Your task to perform on an android device: install app "Spotify: Music and Podcasts" Image 0: 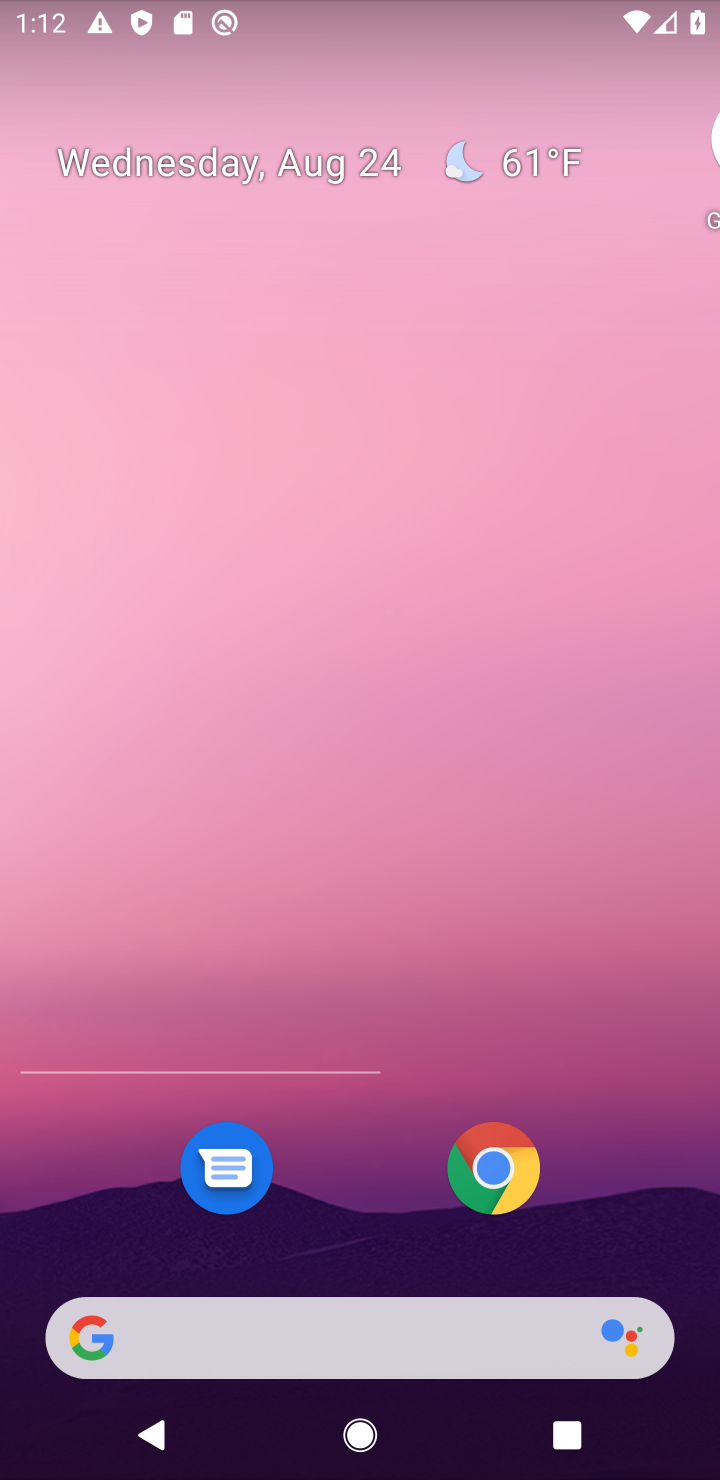
Step 0: press home button
Your task to perform on an android device: install app "Spotify: Music and Podcasts" Image 1: 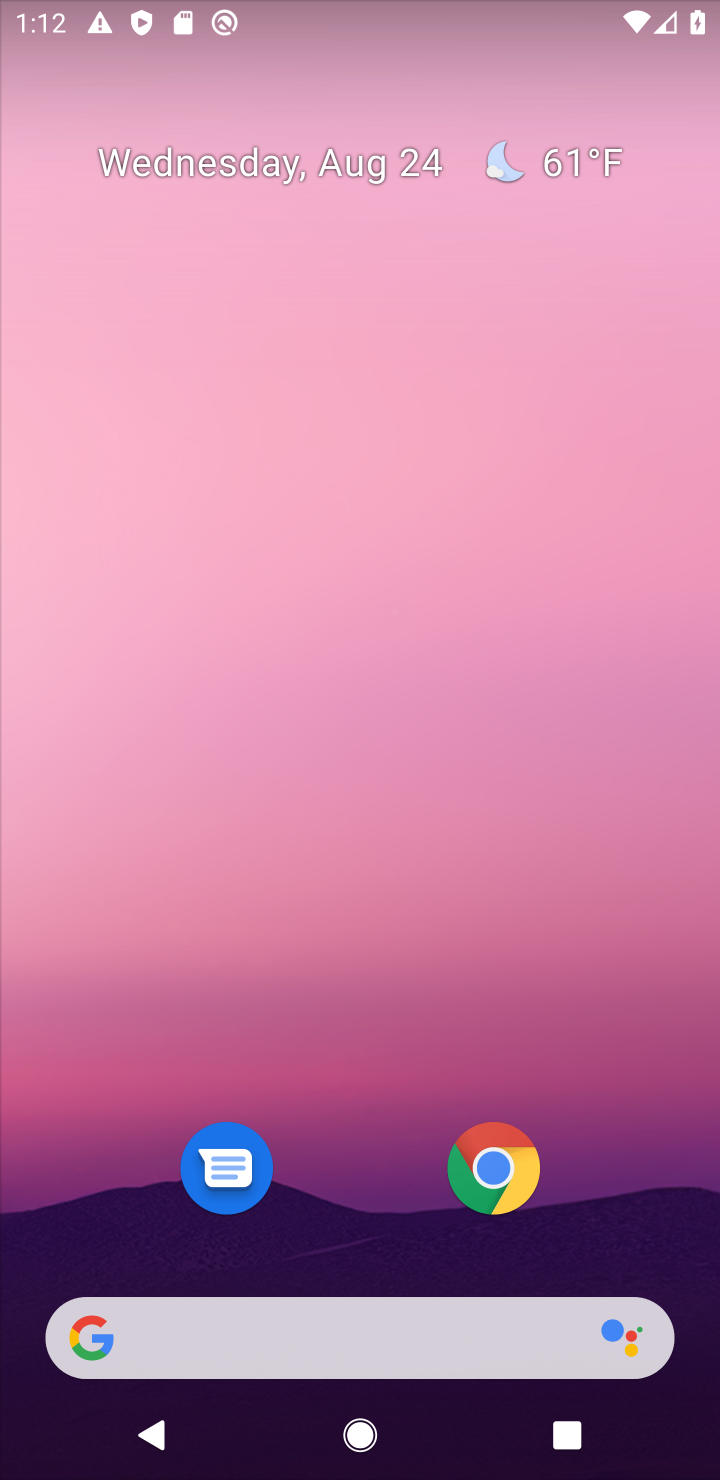
Step 1: drag from (706, 1346) to (623, 240)
Your task to perform on an android device: install app "Spotify: Music and Podcasts" Image 2: 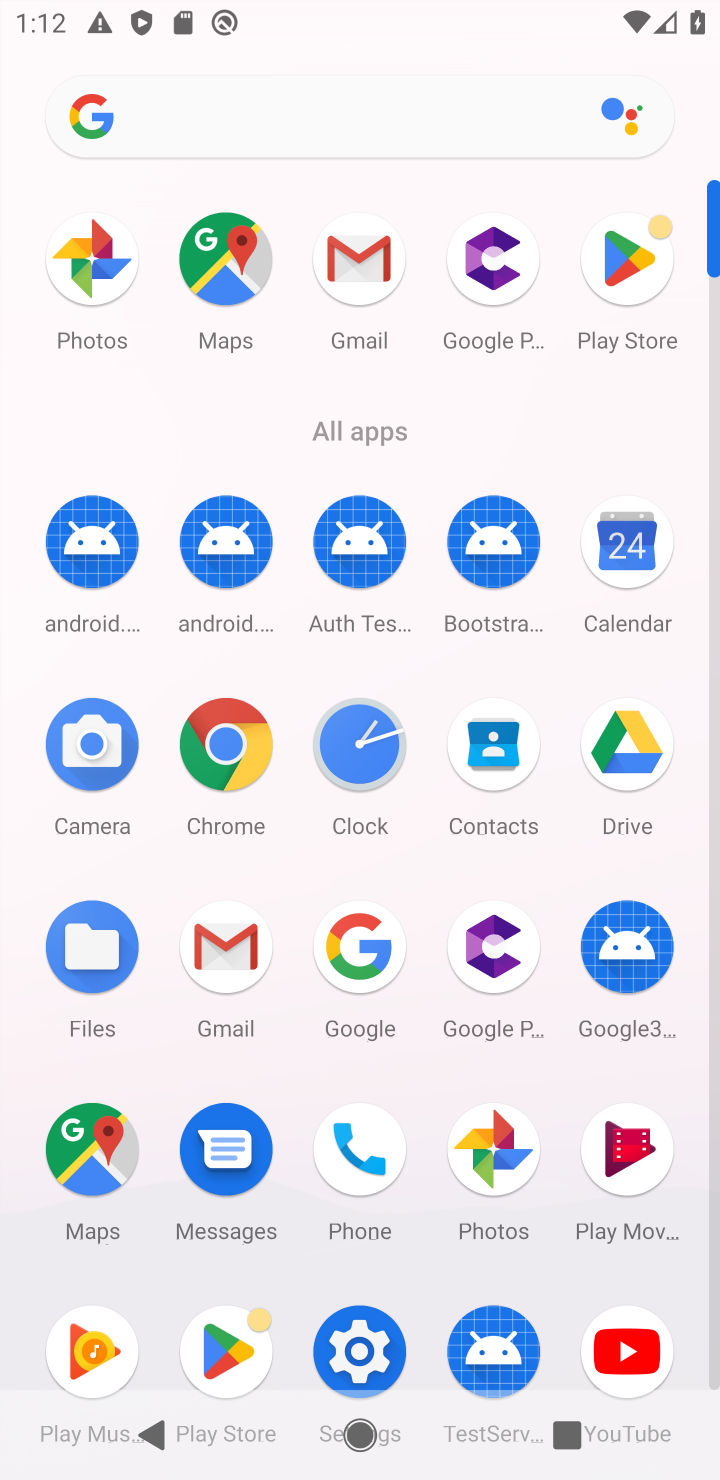
Step 2: click (714, 1324)
Your task to perform on an android device: install app "Spotify: Music and Podcasts" Image 3: 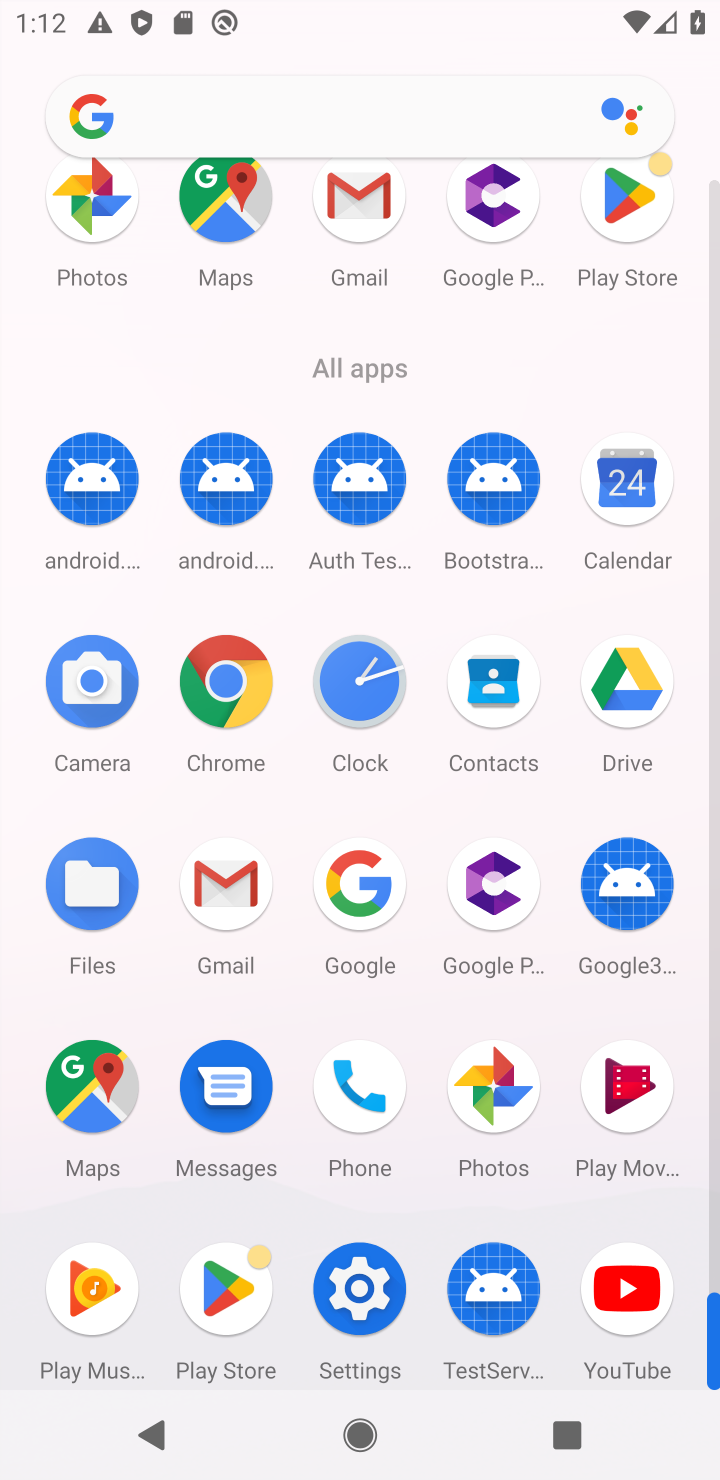
Step 3: click (228, 1292)
Your task to perform on an android device: install app "Spotify: Music and Podcasts" Image 4: 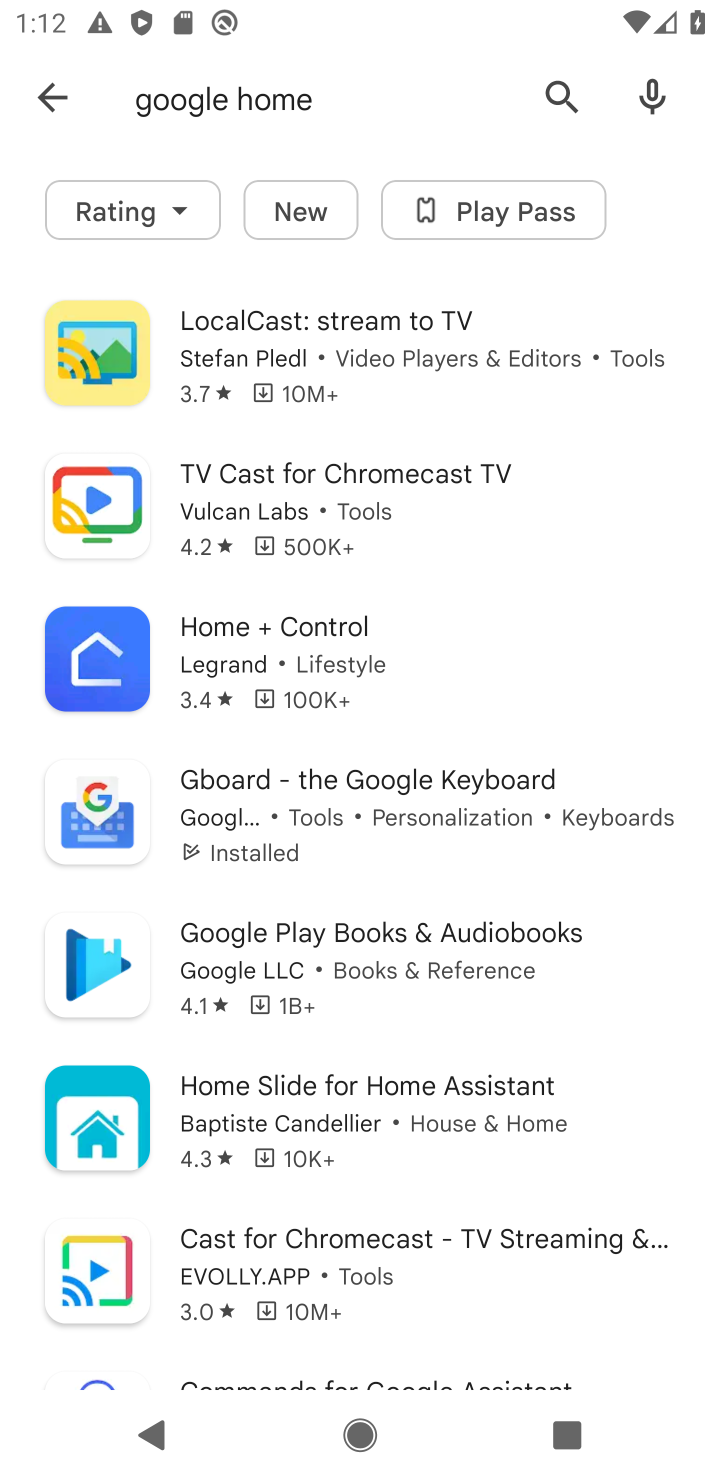
Step 4: click (556, 83)
Your task to perform on an android device: install app "Spotify: Music and Podcasts" Image 5: 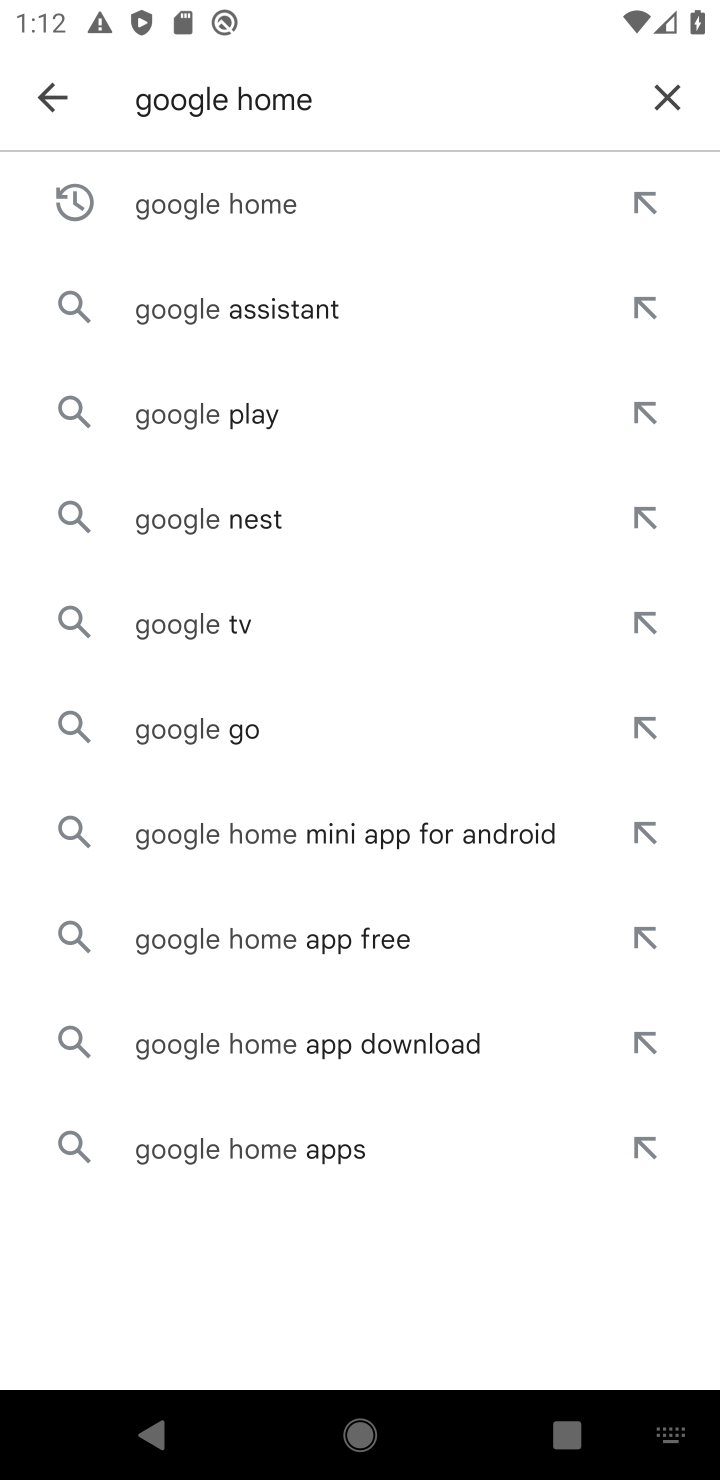
Step 5: click (667, 87)
Your task to perform on an android device: install app "Spotify: Music and Podcasts" Image 6: 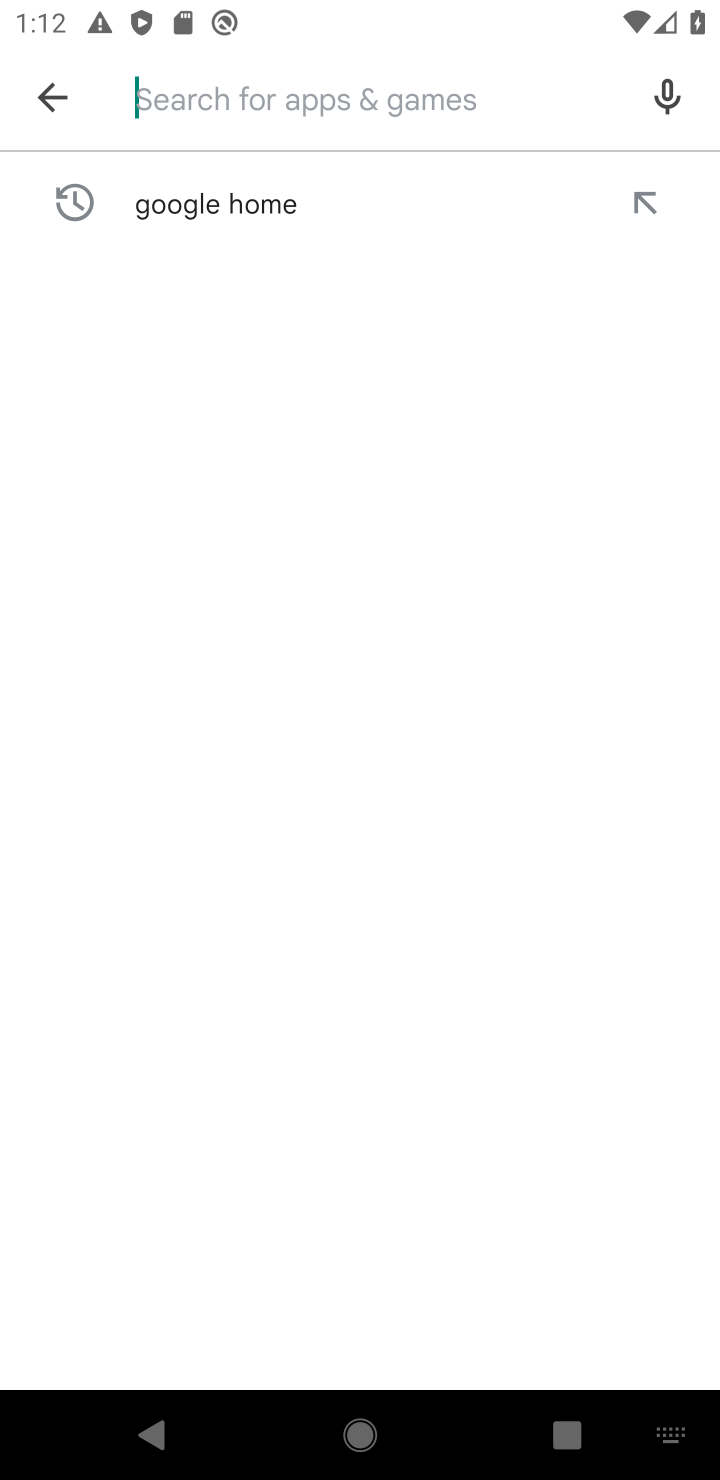
Step 6: type "Spotify"
Your task to perform on an android device: install app "Spotify: Music and Podcasts" Image 7: 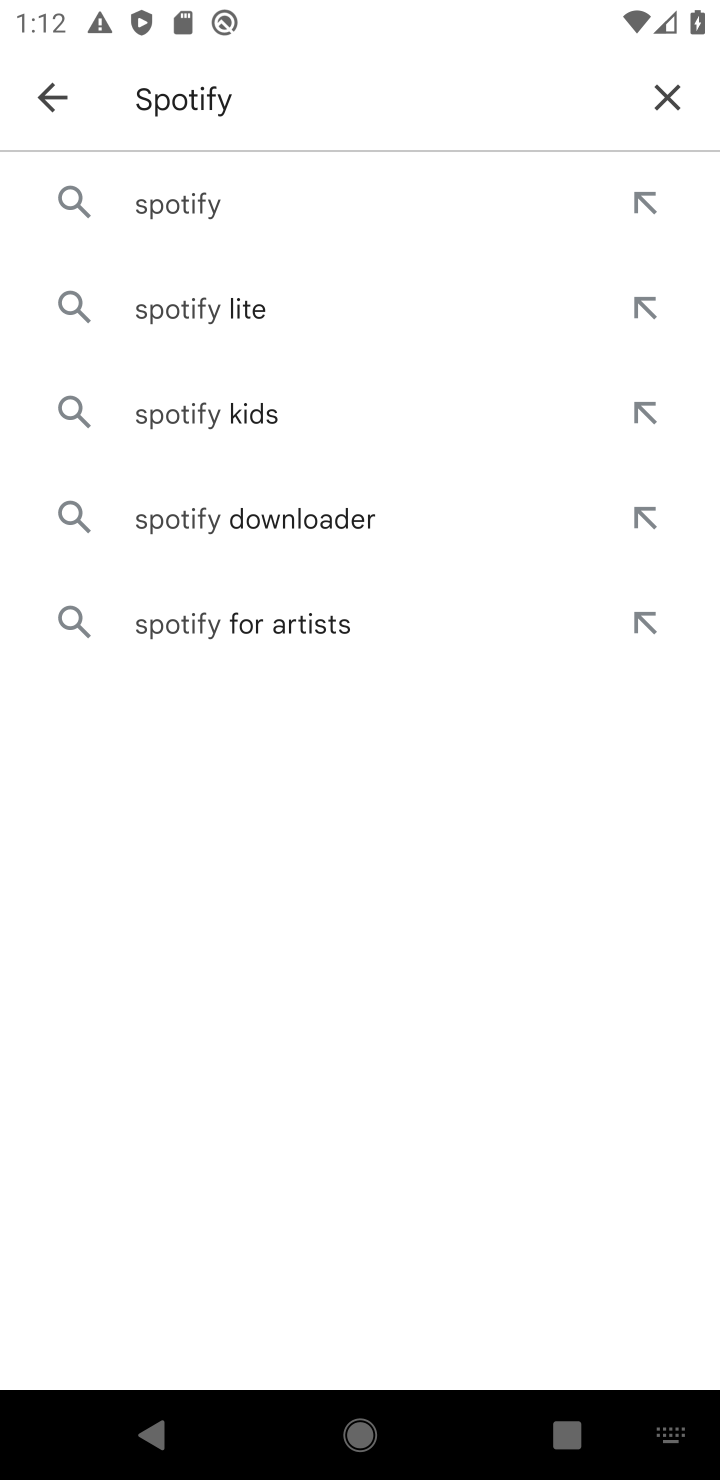
Step 7: click (183, 199)
Your task to perform on an android device: install app "Spotify: Music and Podcasts" Image 8: 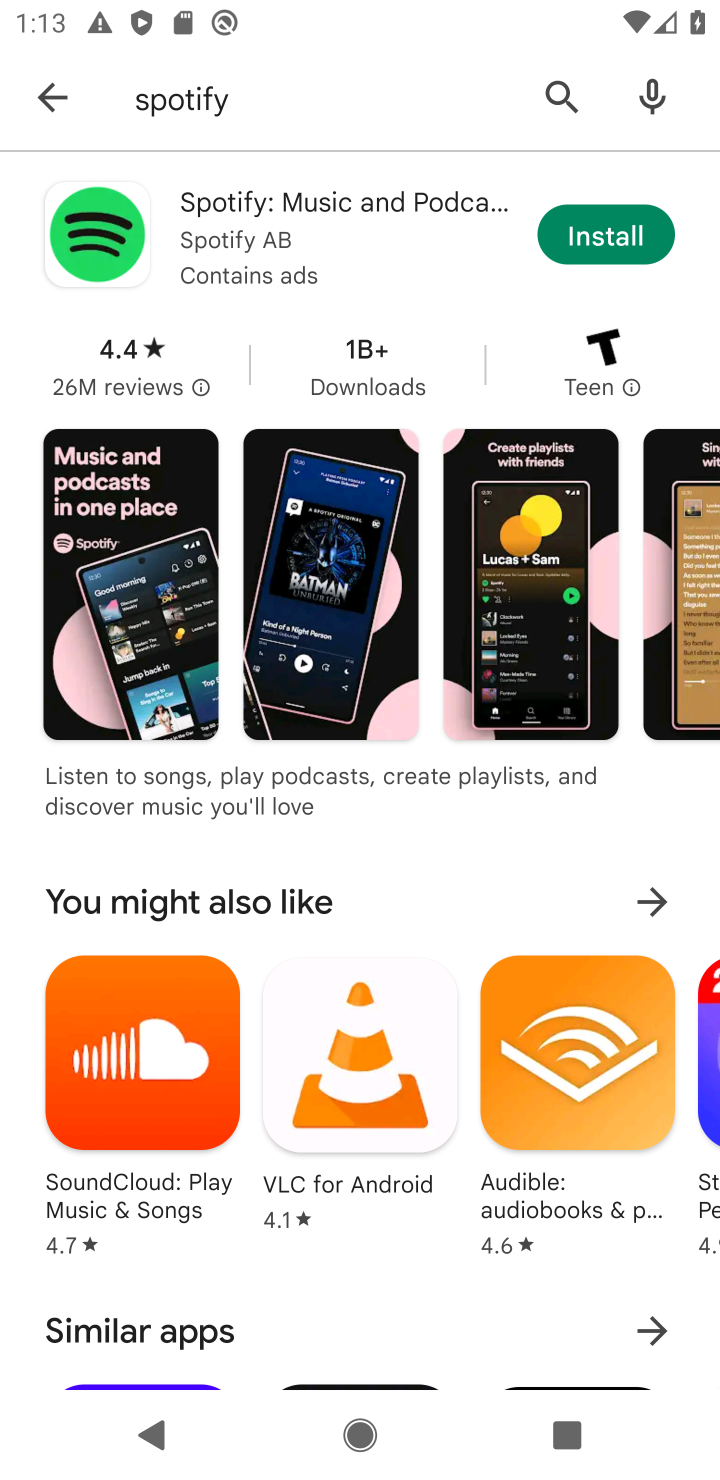
Step 8: click (260, 202)
Your task to perform on an android device: install app "Spotify: Music and Podcasts" Image 9: 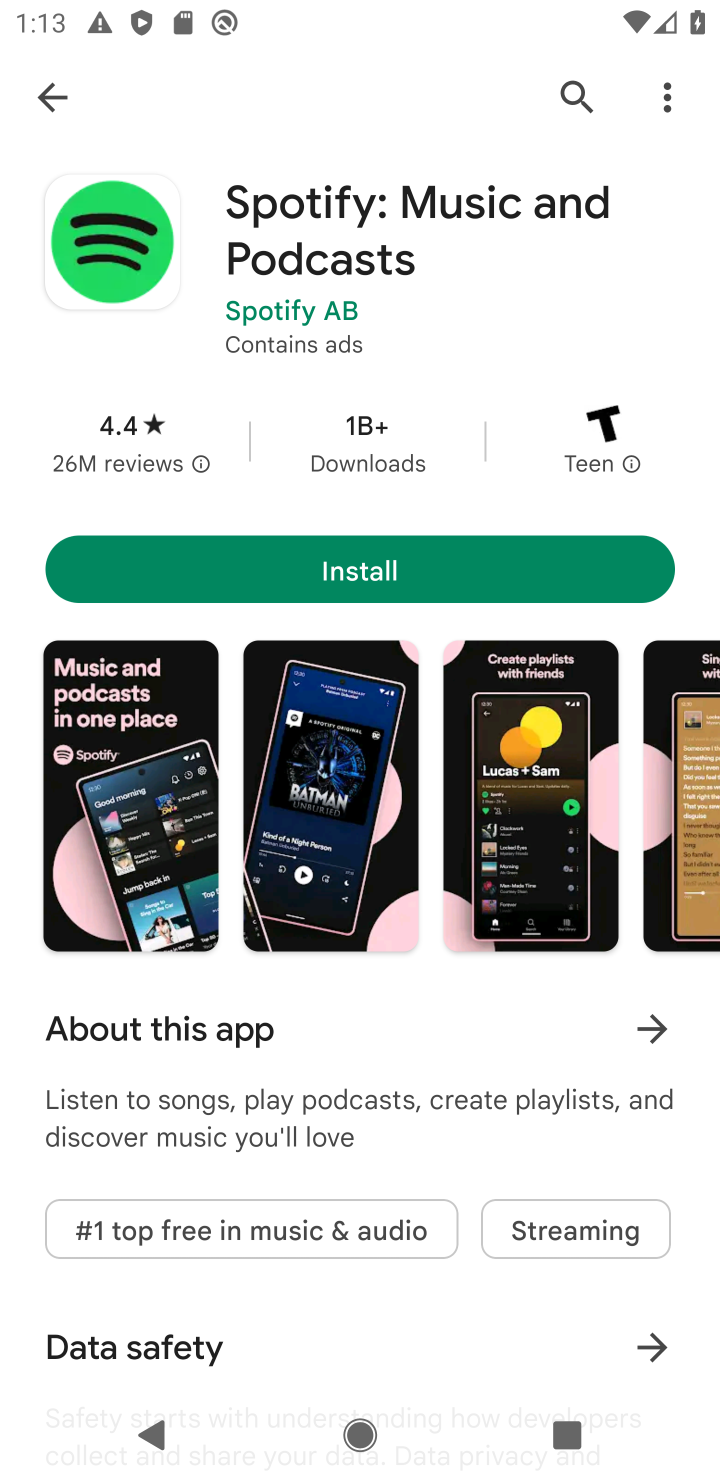
Step 9: click (365, 565)
Your task to perform on an android device: install app "Spotify: Music and Podcasts" Image 10: 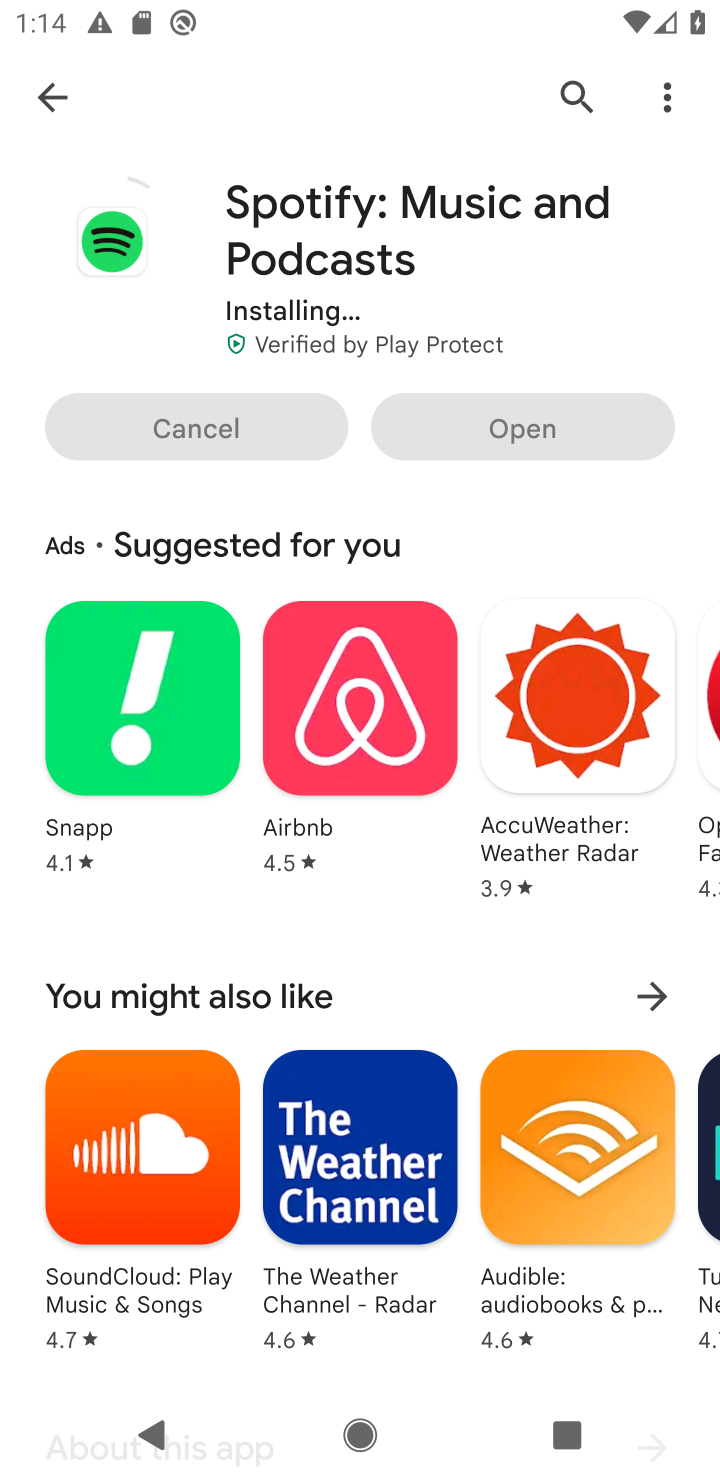
Step 10: drag from (373, 240) to (360, 309)
Your task to perform on an android device: install app "Spotify: Music and Podcasts" Image 11: 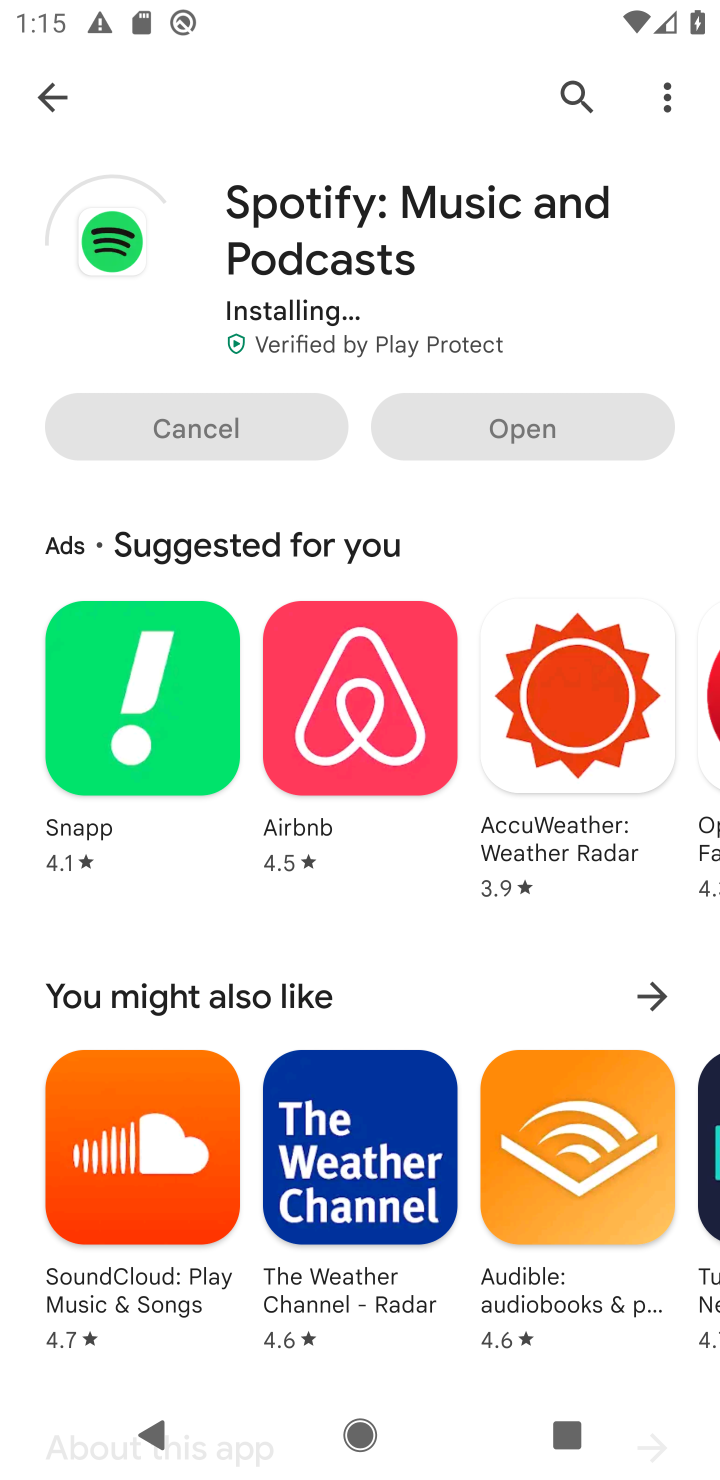
Step 11: click (357, 276)
Your task to perform on an android device: install app "Spotify: Music and Podcasts" Image 12: 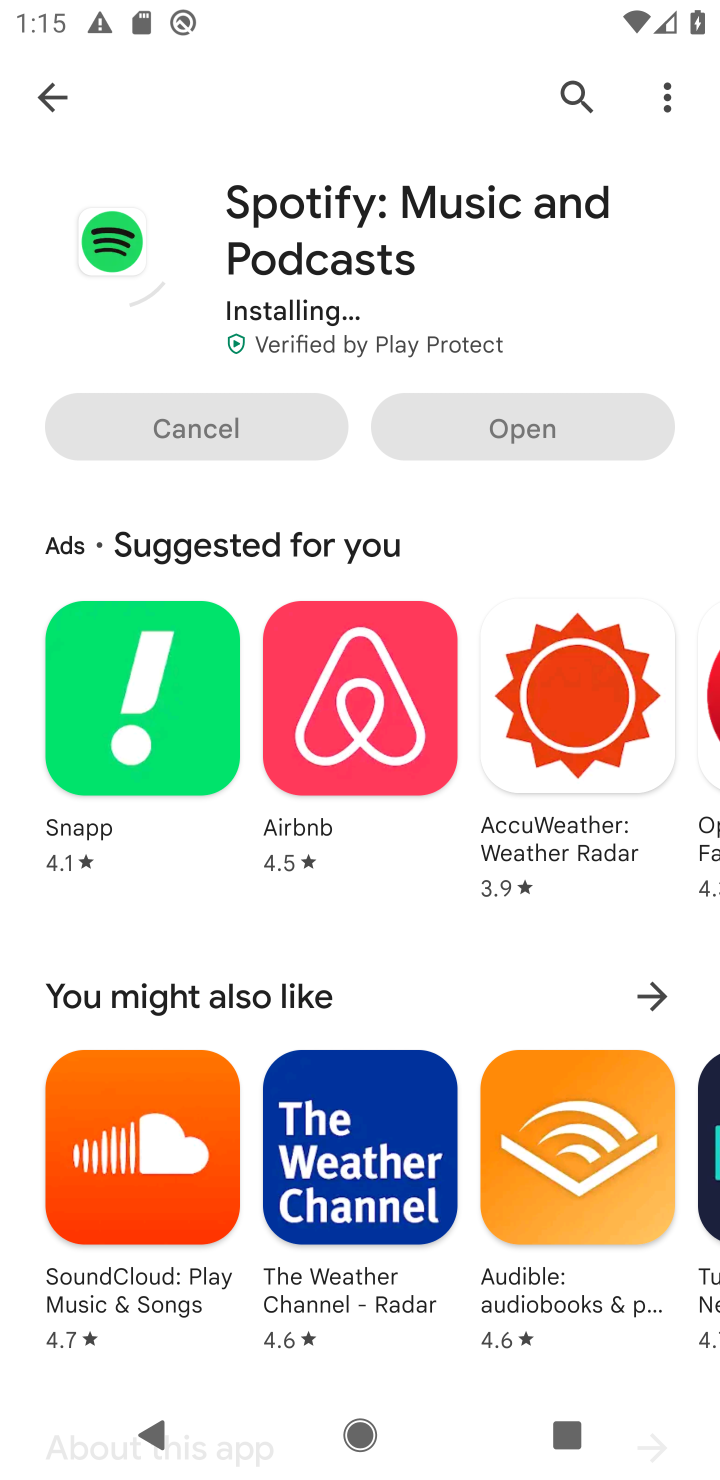
Step 12: click (366, 362)
Your task to perform on an android device: install app "Spotify: Music and Podcasts" Image 13: 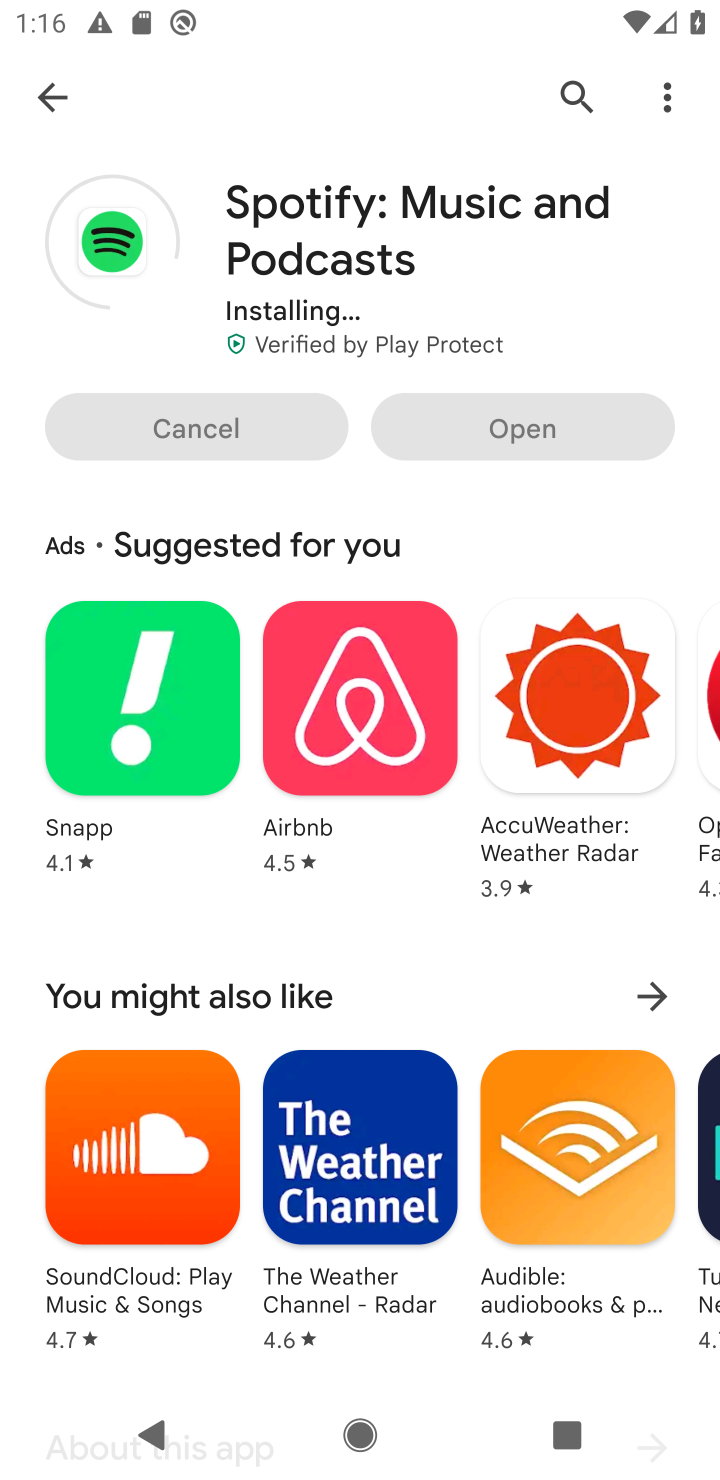
Step 13: press back button
Your task to perform on an android device: install app "Spotify: Music and Podcasts" Image 14: 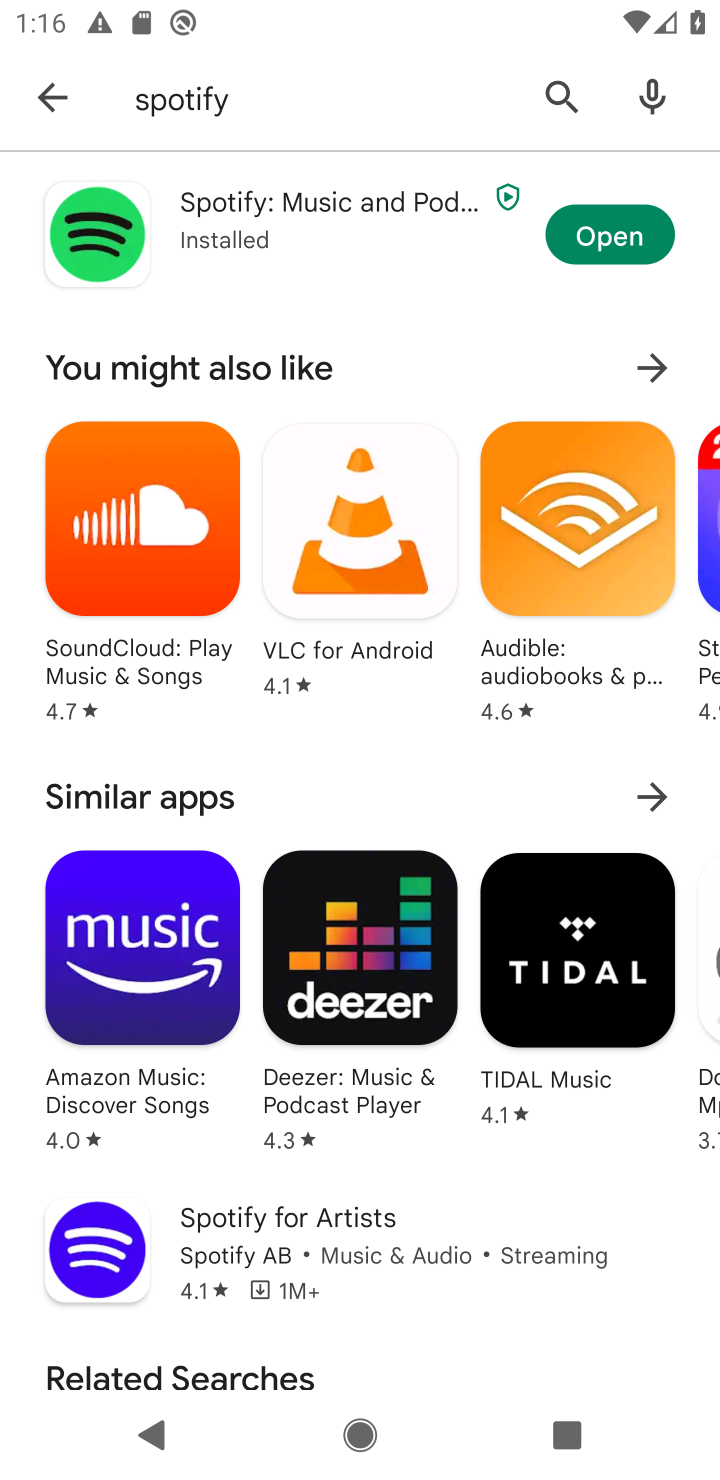
Step 14: click (266, 187)
Your task to perform on an android device: install app "Spotify: Music and Podcasts" Image 15: 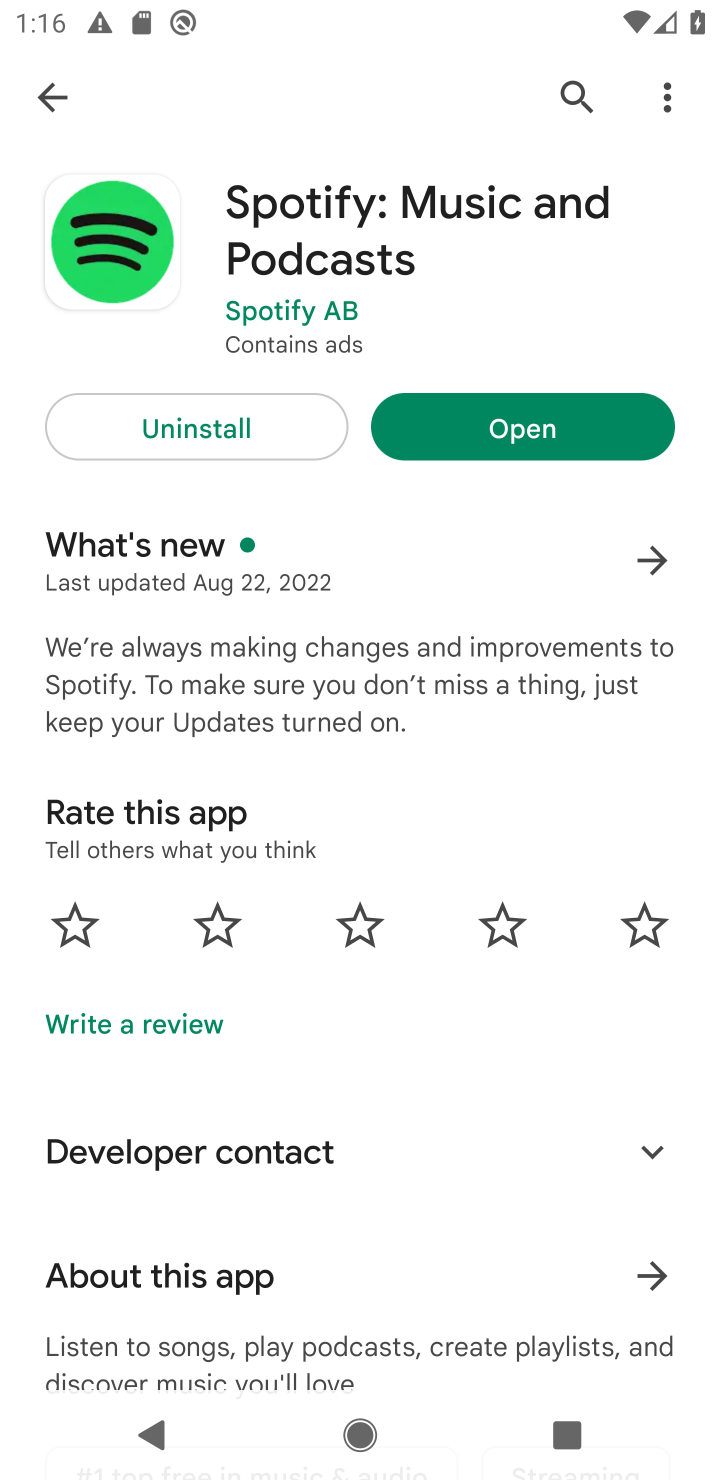
Step 15: task complete